Your task to perform on an android device: see sites visited before in the chrome app Image 0: 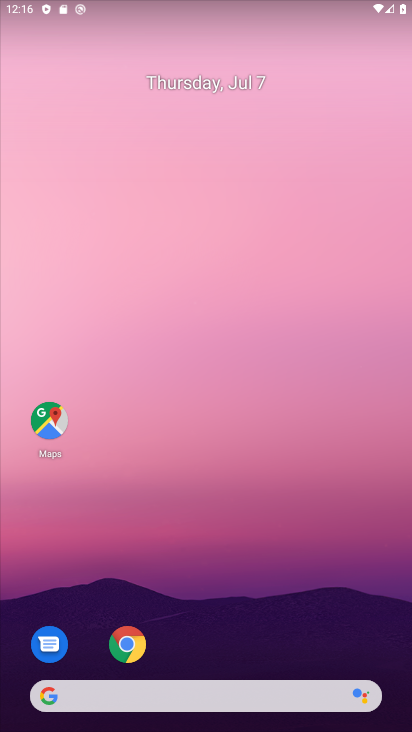
Step 0: click (135, 649)
Your task to perform on an android device: see sites visited before in the chrome app Image 1: 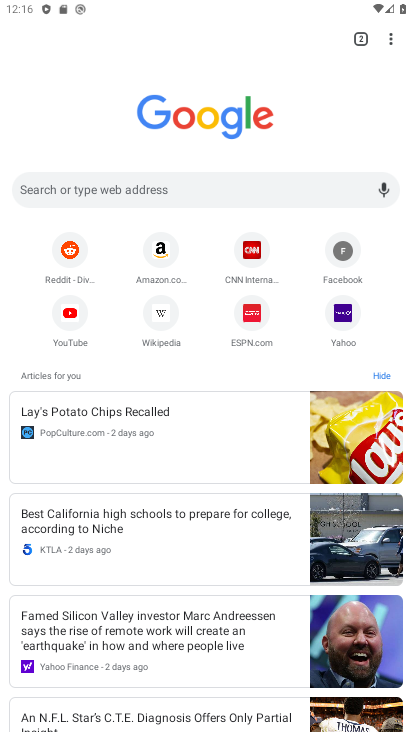
Step 1: task complete